Your task to perform on an android device: open app "Google Calendar" Image 0: 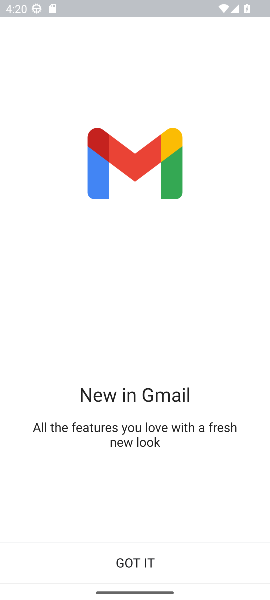
Step 0: click (131, 564)
Your task to perform on an android device: open app "Google Calendar" Image 1: 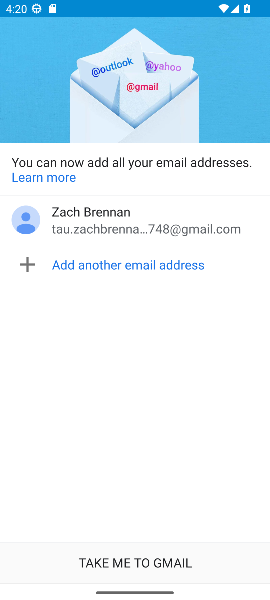
Step 1: press home button
Your task to perform on an android device: open app "Google Calendar" Image 2: 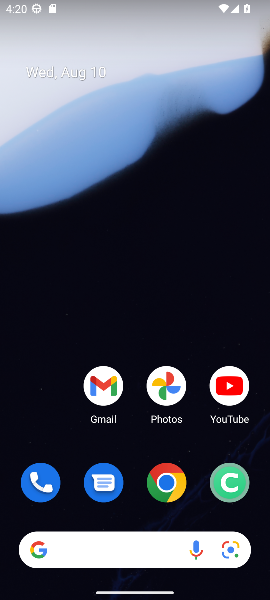
Step 2: drag from (134, 518) to (153, 52)
Your task to perform on an android device: open app "Google Calendar" Image 3: 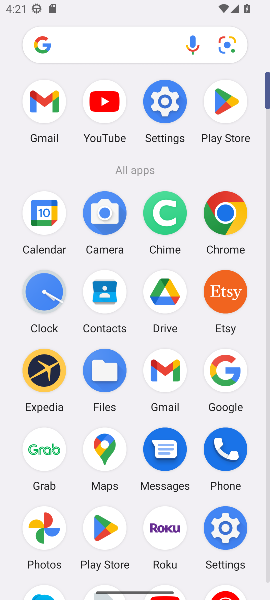
Step 3: click (44, 216)
Your task to perform on an android device: open app "Google Calendar" Image 4: 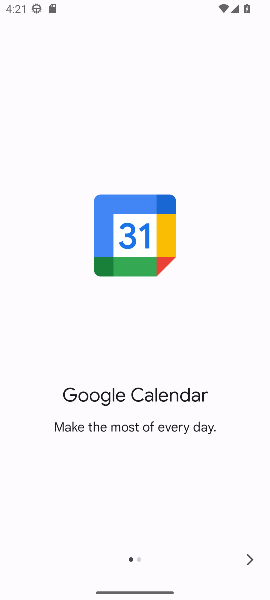
Step 4: click (250, 554)
Your task to perform on an android device: open app "Google Calendar" Image 5: 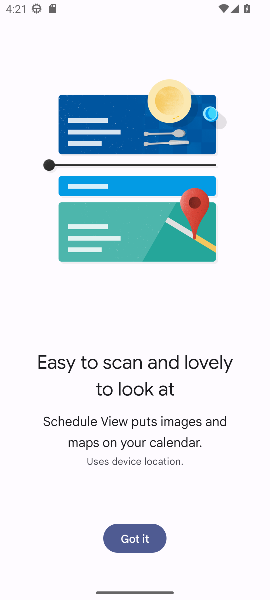
Step 5: click (145, 534)
Your task to perform on an android device: open app "Google Calendar" Image 6: 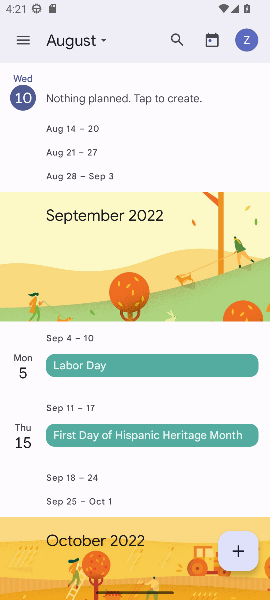
Step 6: task complete